Your task to perform on an android device: open app "Pluto TV - Live TV and Movies" Image 0: 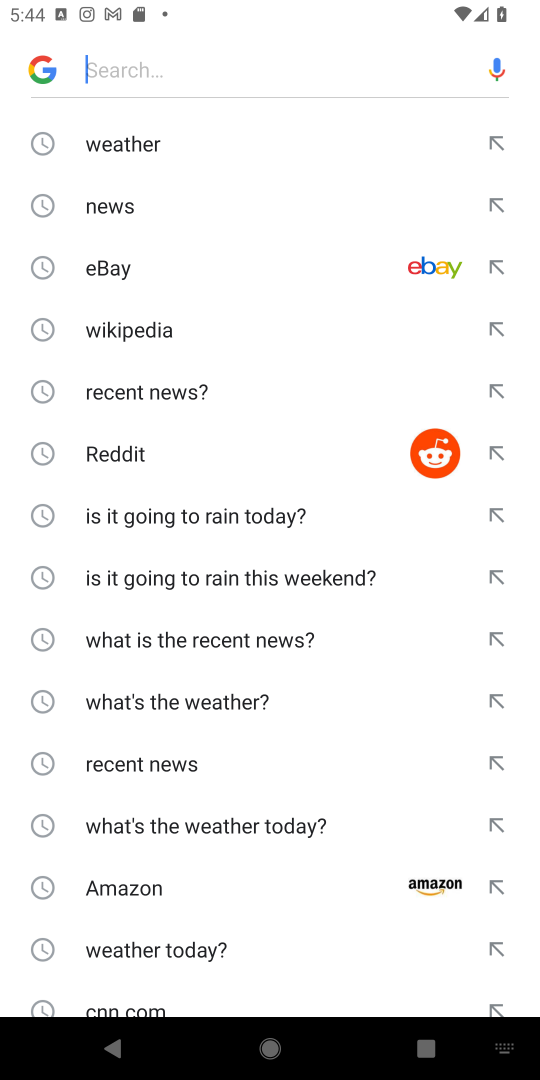
Step 0: press home button
Your task to perform on an android device: open app "Pluto TV - Live TV and Movies" Image 1: 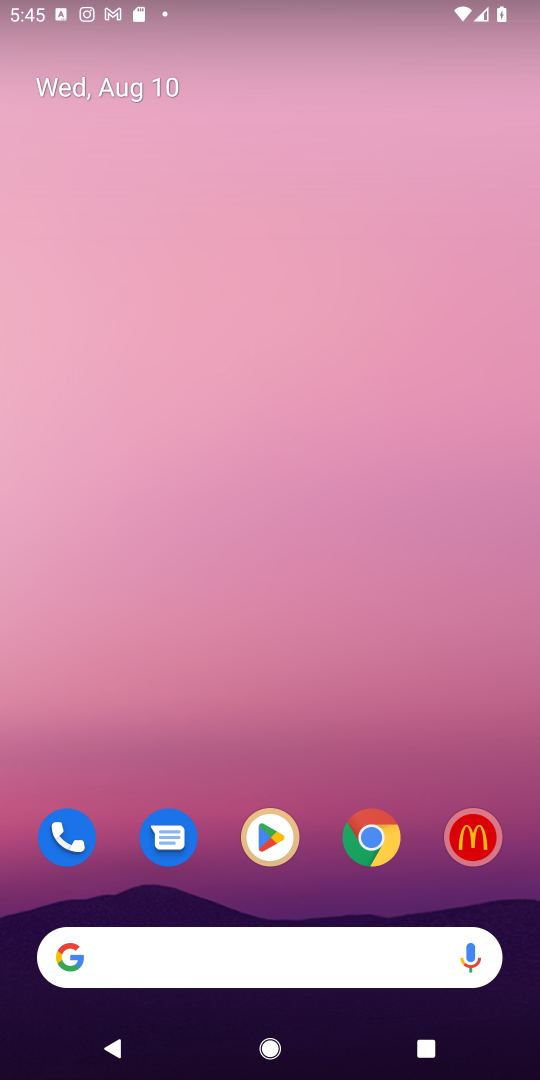
Step 1: click (272, 836)
Your task to perform on an android device: open app "Pluto TV - Live TV and Movies" Image 2: 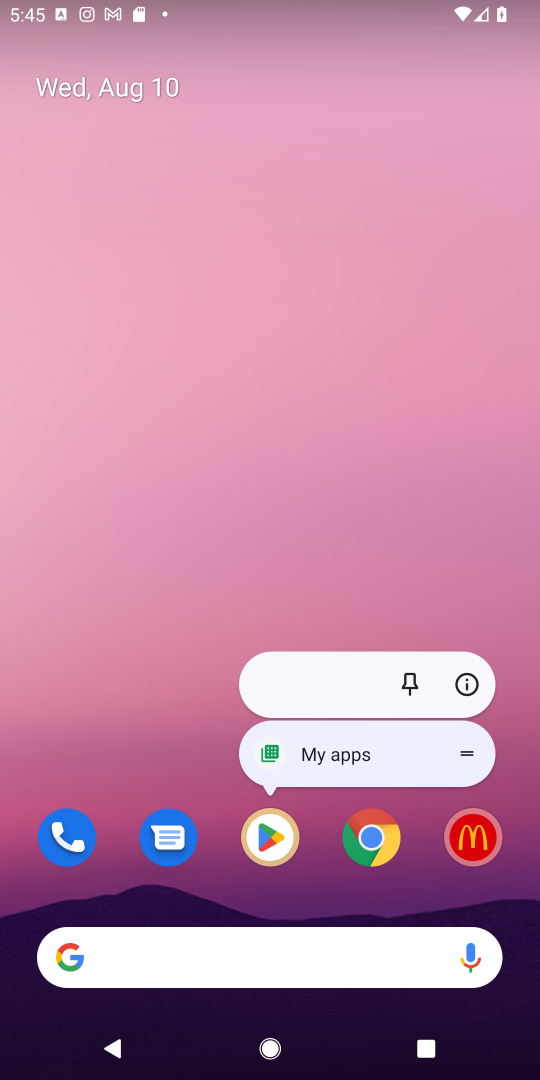
Step 2: click (272, 836)
Your task to perform on an android device: open app "Pluto TV - Live TV and Movies" Image 3: 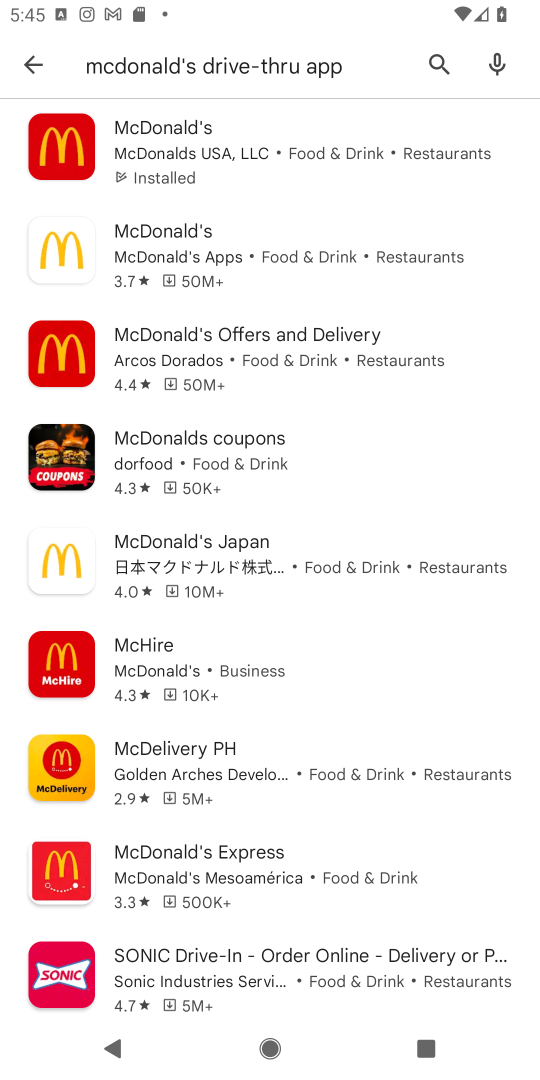
Step 3: click (432, 60)
Your task to perform on an android device: open app "Pluto TV - Live TV and Movies" Image 4: 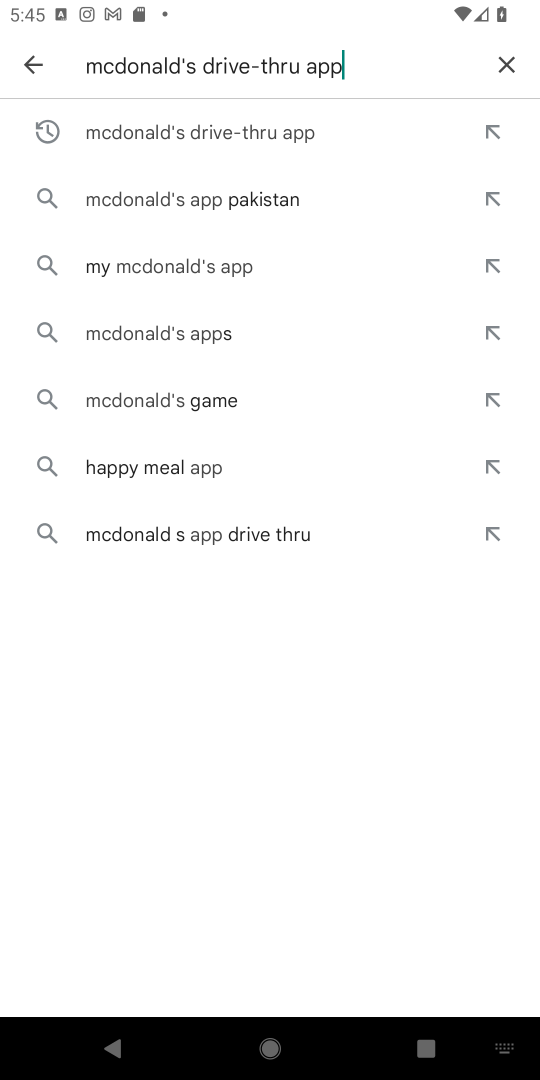
Step 4: click (515, 69)
Your task to perform on an android device: open app "Pluto TV - Live TV and Movies" Image 5: 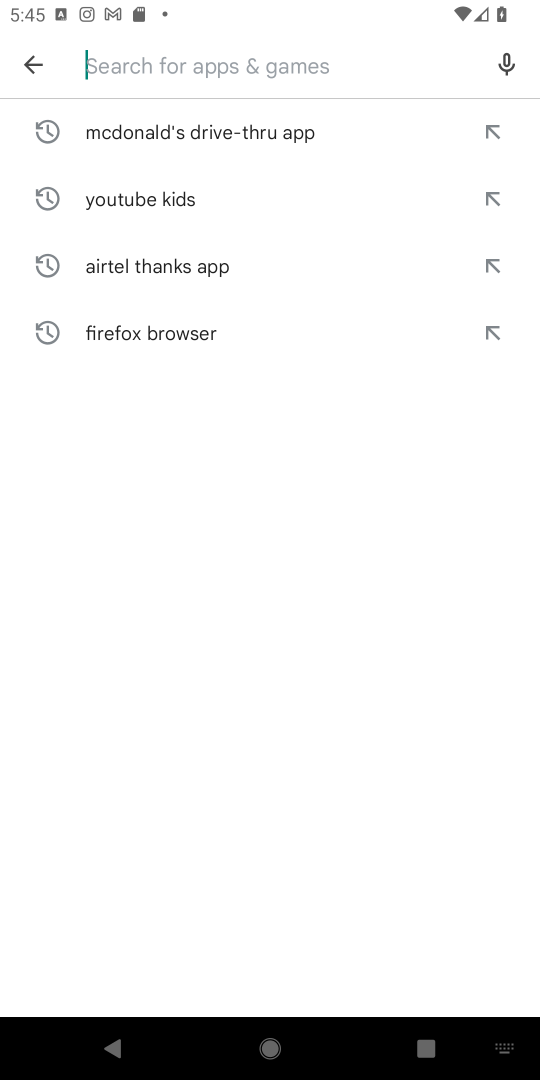
Step 5: type "Pluto TV - Live TV and Movies"
Your task to perform on an android device: open app "Pluto TV - Live TV and Movies" Image 6: 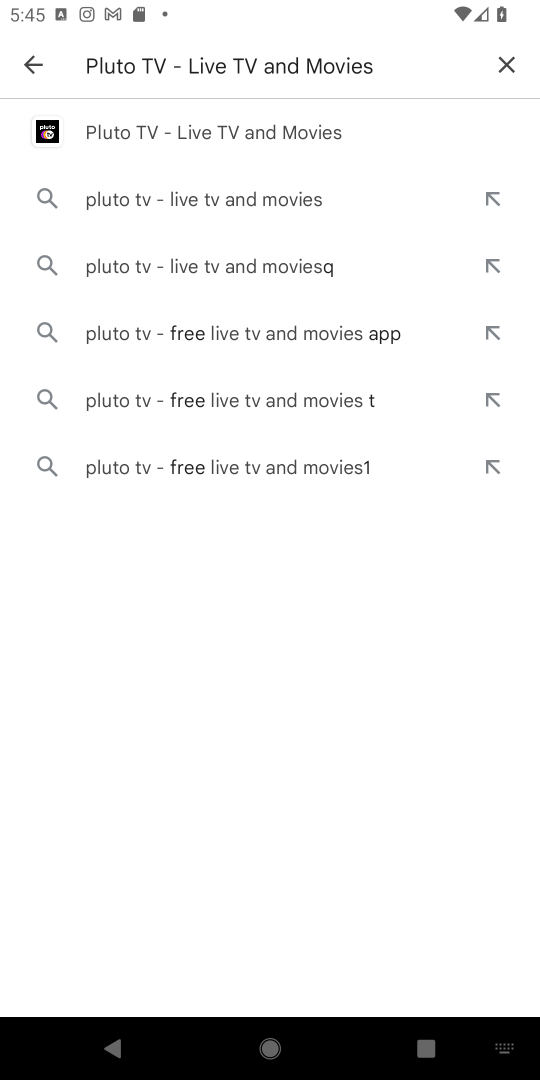
Step 6: click (221, 134)
Your task to perform on an android device: open app "Pluto TV - Live TV and Movies" Image 7: 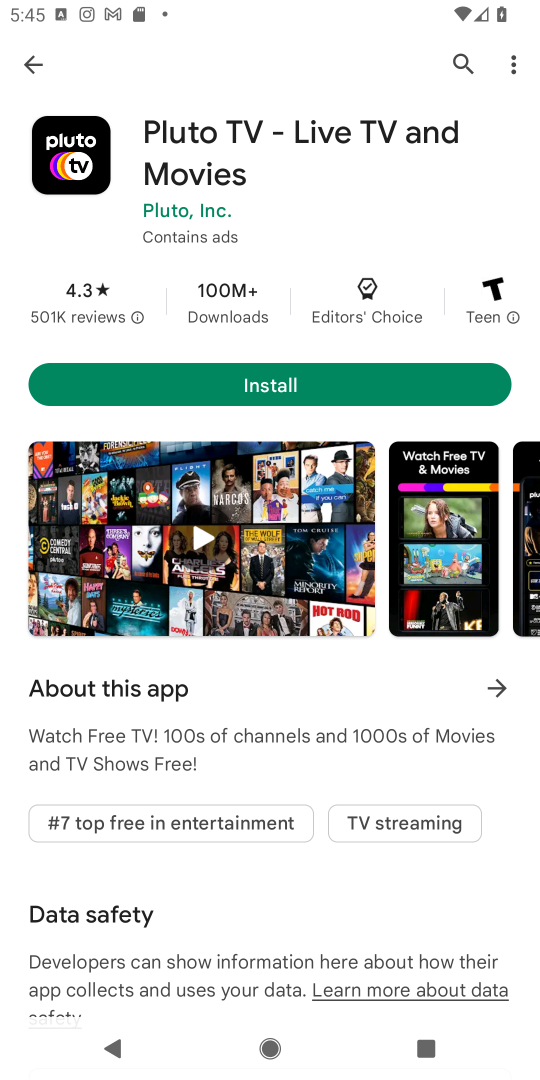
Step 7: task complete